Your task to perform on an android device: change notification settings in the gmail app Image 0: 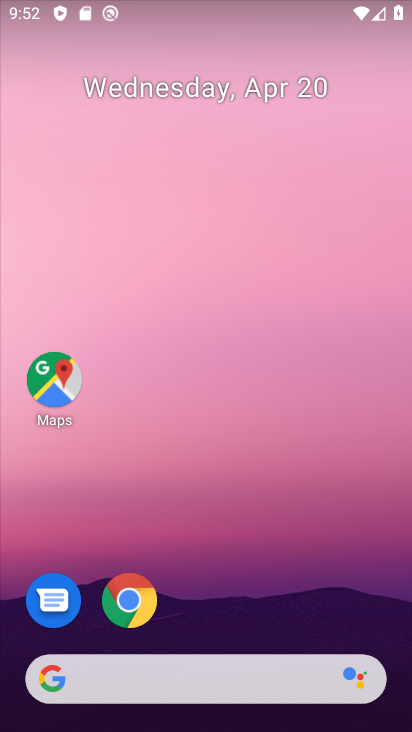
Step 0: drag from (259, 574) to (263, 193)
Your task to perform on an android device: change notification settings in the gmail app Image 1: 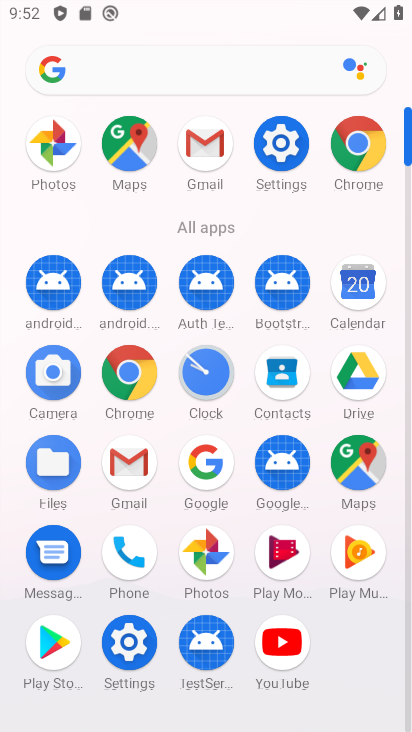
Step 1: click (204, 142)
Your task to perform on an android device: change notification settings in the gmail app Image 2: 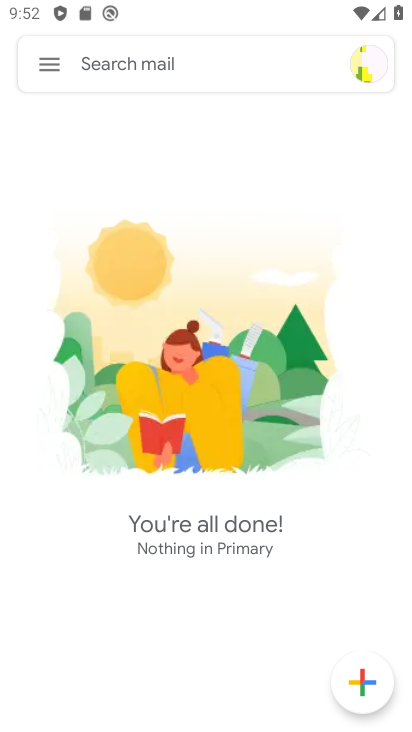
Step 2: click (49, 60)
Your task to perform on an android device: change notification settings in the gmail app Image 3: 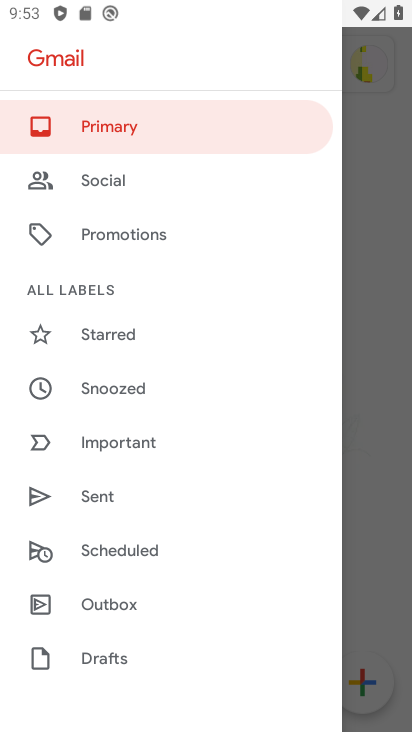
Step 3: drag from (163, 624) to (217, 221)
Your task to perform on an android device: change notification settings in the gmail app Image 4: 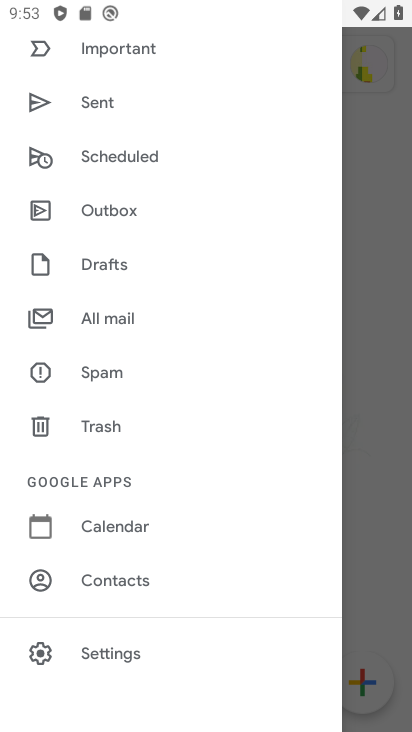
Step 4: click (107, 642)
Your task to perform on an android device: change notification settings in the gmail app Image 5: 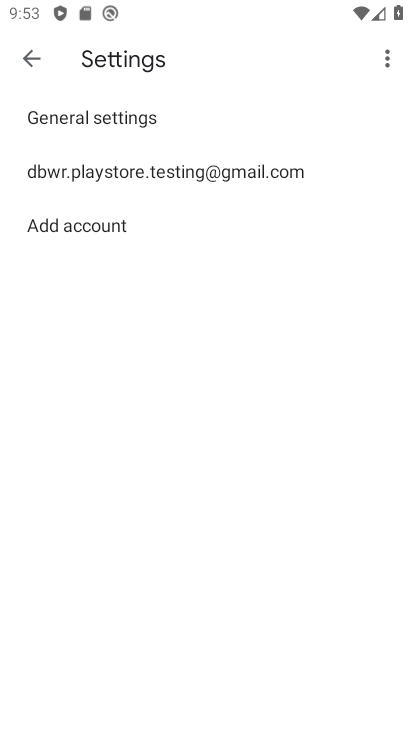
Step 5: click (178, 175)
Your task to perform on an android device: change notification settings in the gmail app Image 6: 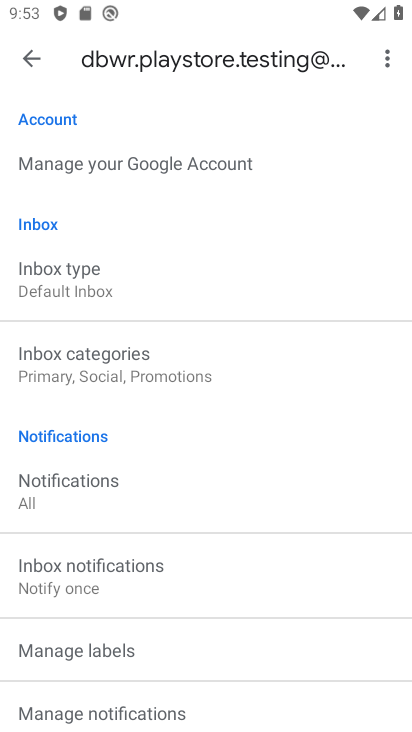
Step 6: drag from (236, 612) to (236, 507)
Your task to perform on an android device: change notification settings in the gmail app Image 7: 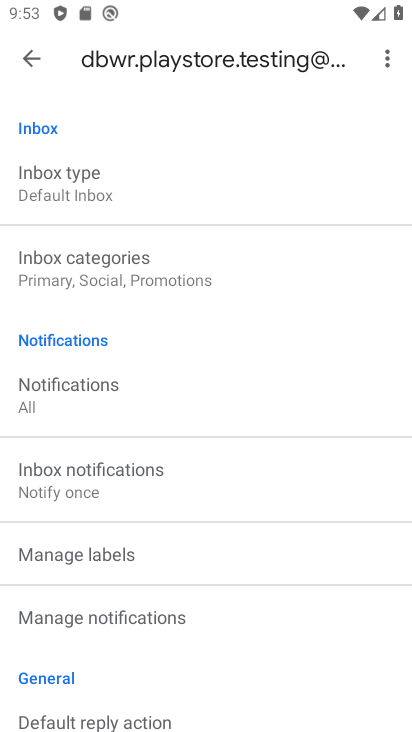
Step 7: click (156, 410)
Your task to perform on an android device: change notification settings in the gmail app Image 8: 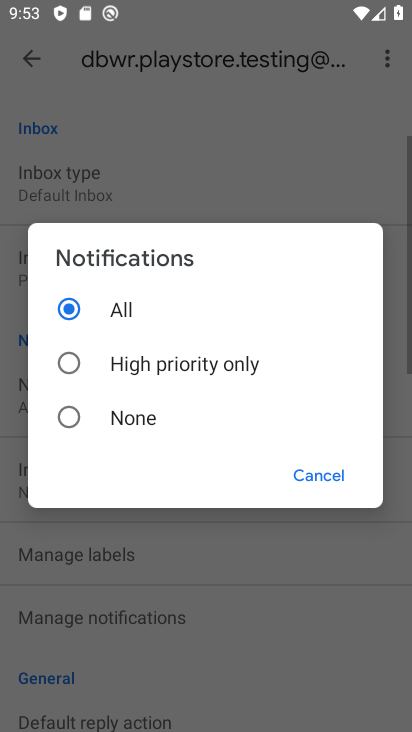
Step 8: click (138, 364)
Your task to perform on an android device: change notification settings in the gmail app Image 9: 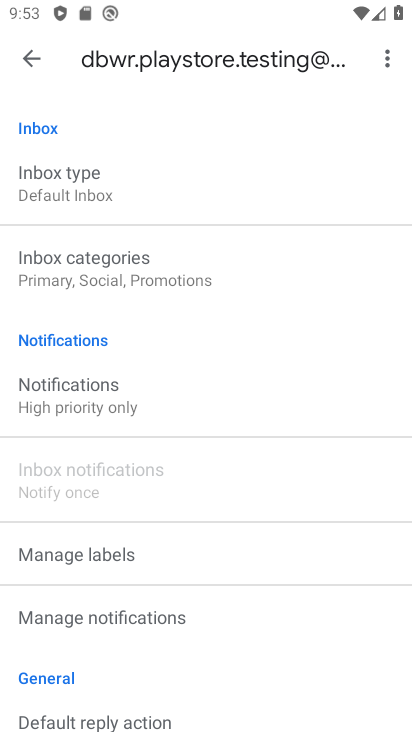
Step 9: task complete